Your task to perform on an android device: open app "DuckDuckGo Privacy Browser" (install if not already installed) Image 0: 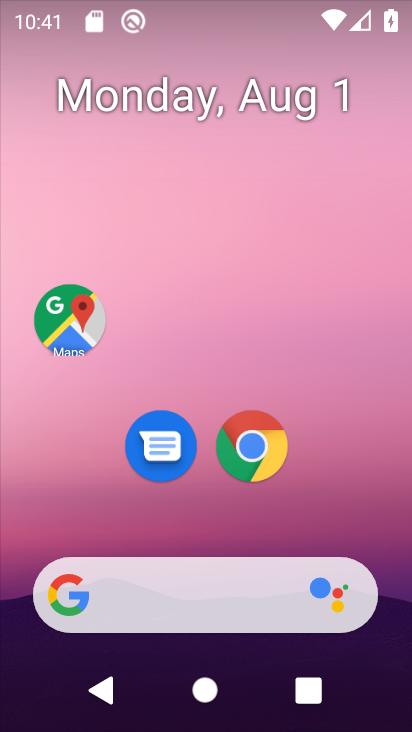
Step 0: drag from (208, 521) to (250, 197)
Your task to perform on an android device: open app "DuckDuckGo Privacy Browser" (install if not already installed) Image 1: 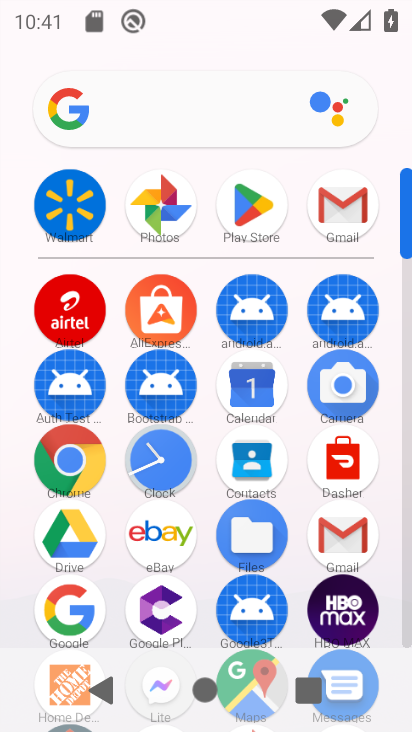
Step 1: click (246, 208)
Your task to perform on an android device: open app "DuckDuckGo Privacy Browser" (install if not already installed) Image 2: 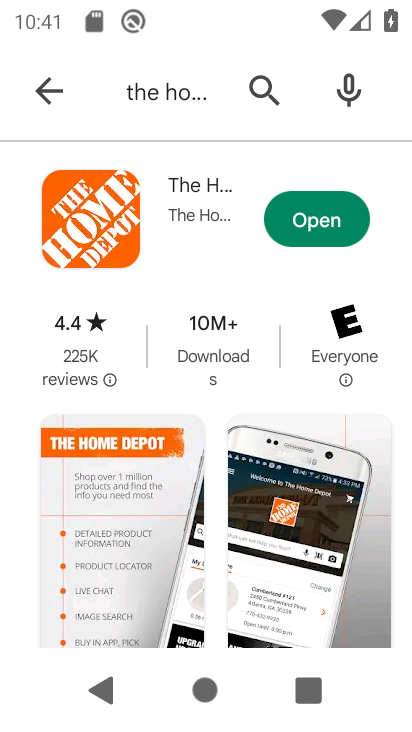
Step 2: click (246, 85)
Your task to perform on an android device: open app "DuckDuckGo Privacy Browser" (install if not already installed) Image 3: 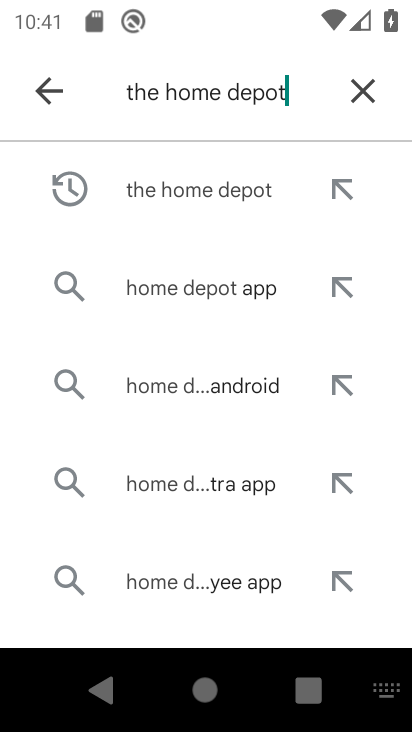
Step 3: click (375, 86)
Your task to perform on an android device: open app "DuckDuckGo Privacy Browser" (install if not already installed) Image 4: 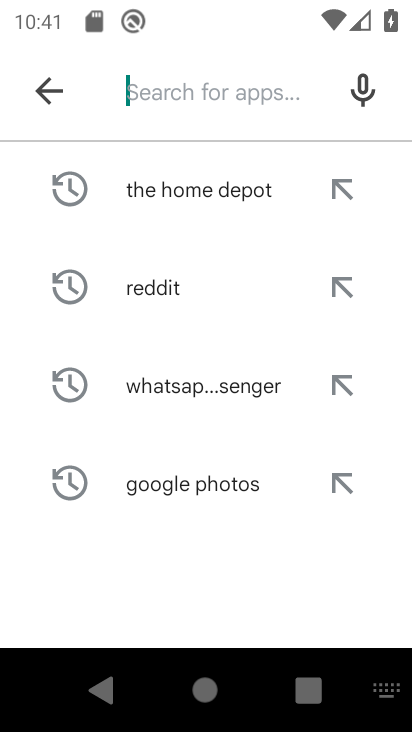
Step 4: type "DuckDuckGo Privacy Browser"
Your task to perform on an android device: open app "DuckDuckGo Privacy Browser" (install if not already installed) Image 5: 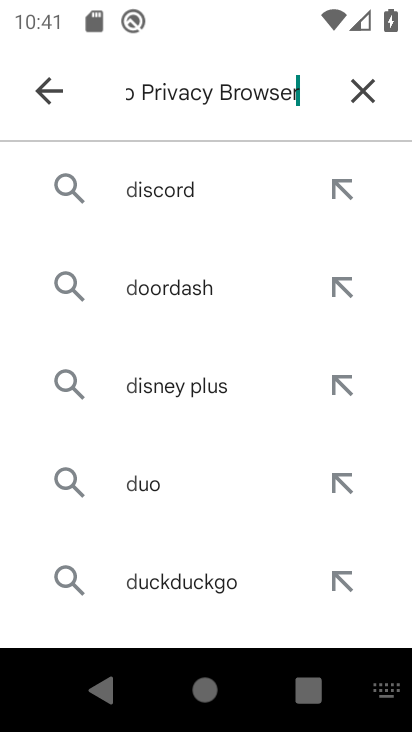
Step 5: type ""
Your task to perform on an android device: open app "DuckDuckGo Privacy Browser" (install if not already installed) Image 6: 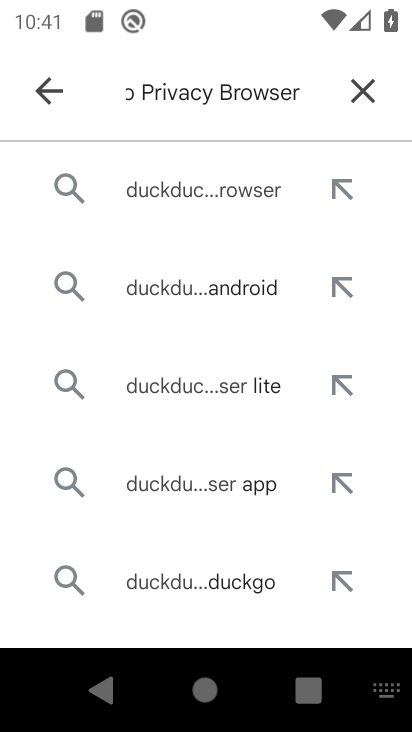
Step 6: click (173, 193)
Your task to perform on an android device: open app "DuckDuckGo Privacy Browser" (install if not already installed) Image 7: 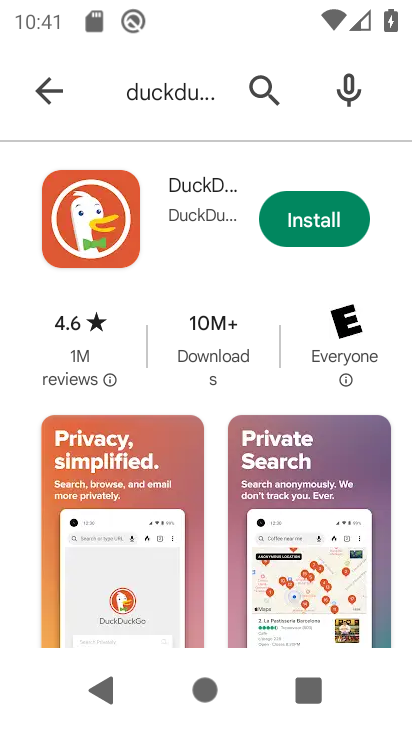
Step 7: click (303, 234)
Your task to perform on an android device: open app "DuckDuckGo Privacy Browser" (install if not already installed) Image 8: 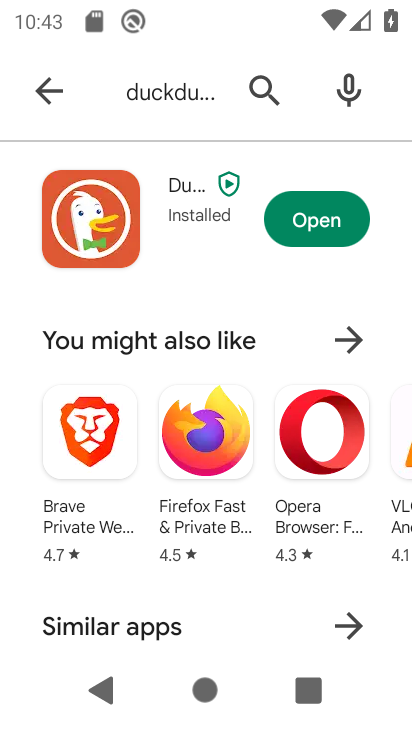
Step 8: click (312, 238)
Your task to perform on an android device: open app "DuckDuckGo Privacy Browser" (install if not already installed) Image 9: 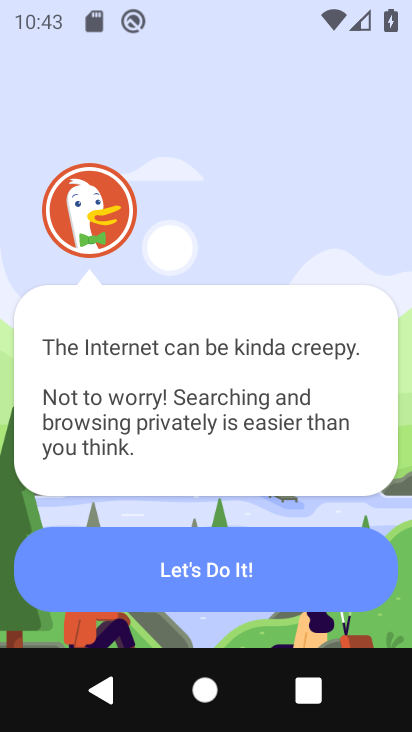
Step 9: task complete